Your task to perform on an android device: Go to network settings Image 0: 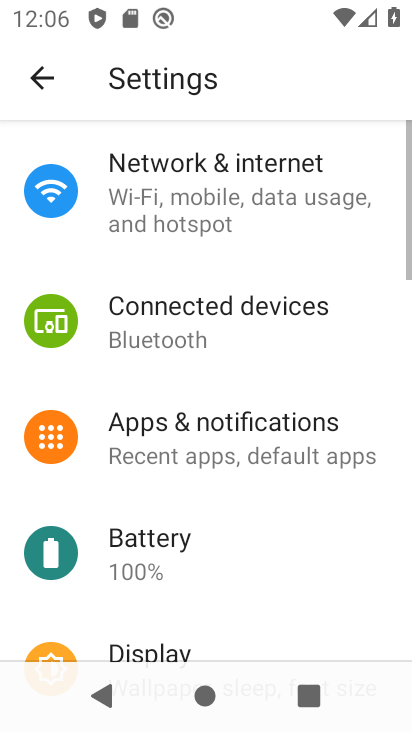
Step 0: click (270, 199)
Your task to perform on an android device: Go to network settings Image 1: 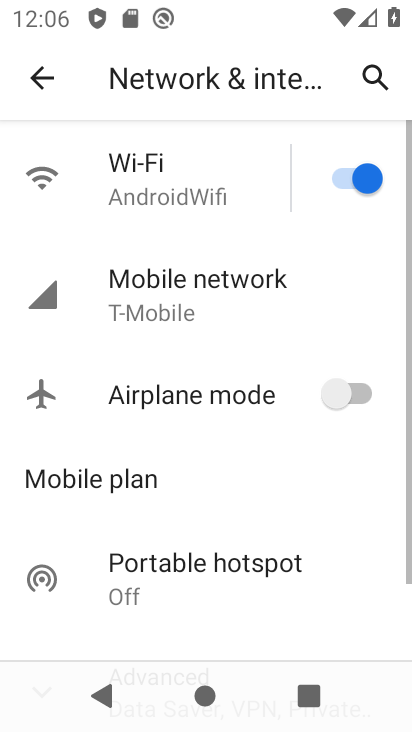
Step 1: task complete